Your task to perform on an android device: When is my next meeting? Image 0: 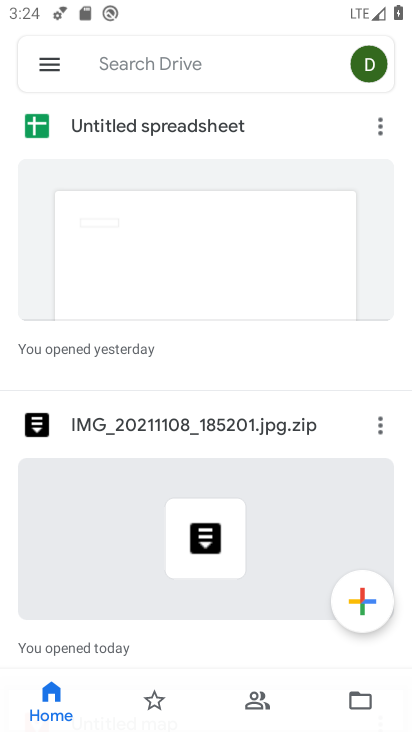
Step 0: press home button
Your task to perform on an android device: When is my next meeting? Image 1: 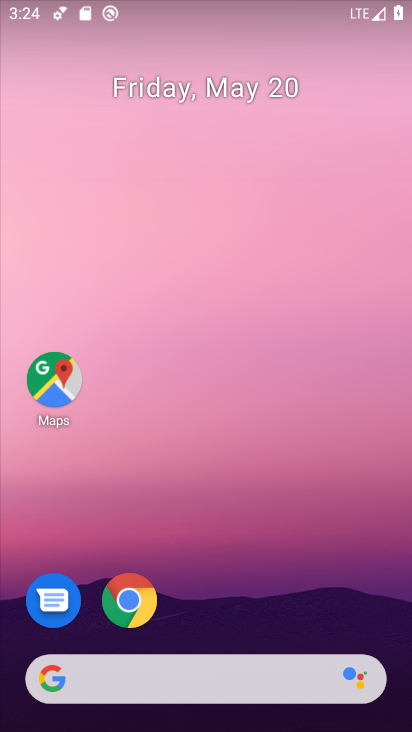
Step 1: drag from (335, 584) to (321, 149)
Your task to perform on an android device: When is my next meeting? Image 2: 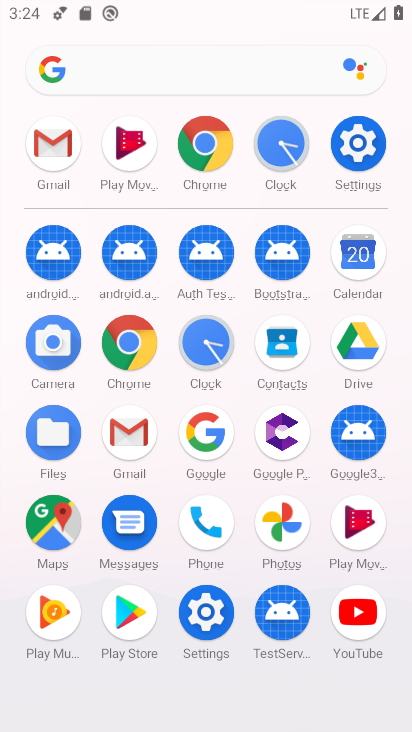
Step 2: click (363, 278)
Your task to perform on an android device: When is my next meeting? Image 3: 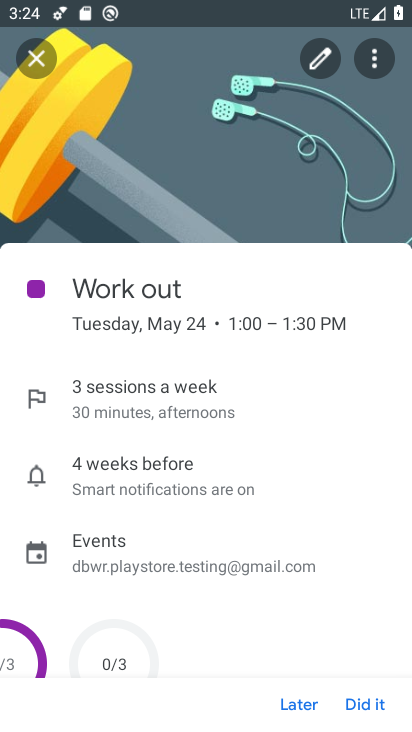
Step 3: task complete